Your task to perform on an android device: Go to notification settings Image 0: 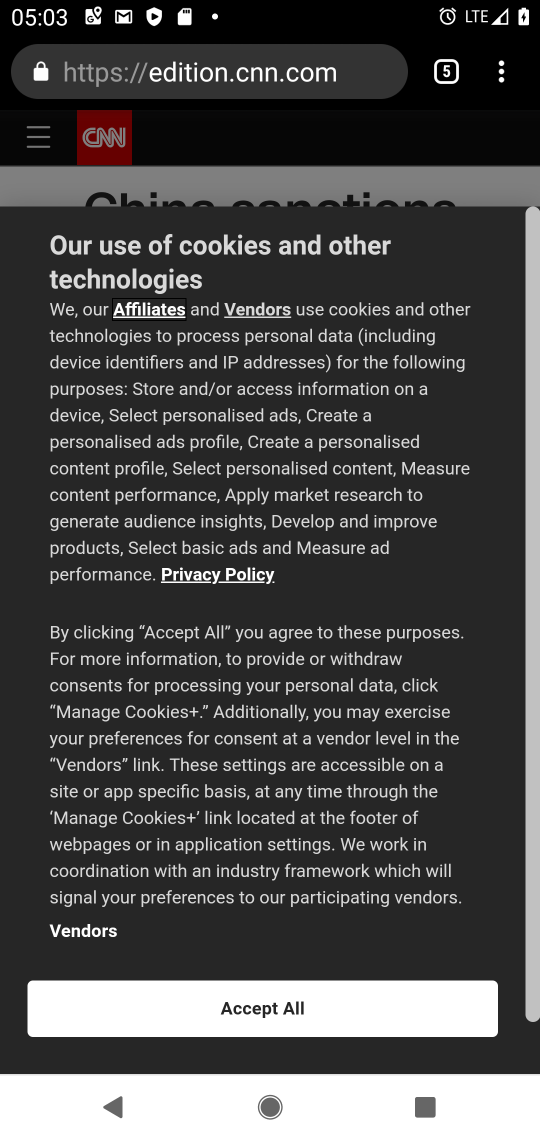
Step 0: press home button
Your task to perform on an android device: Go to notification settings Image 1: 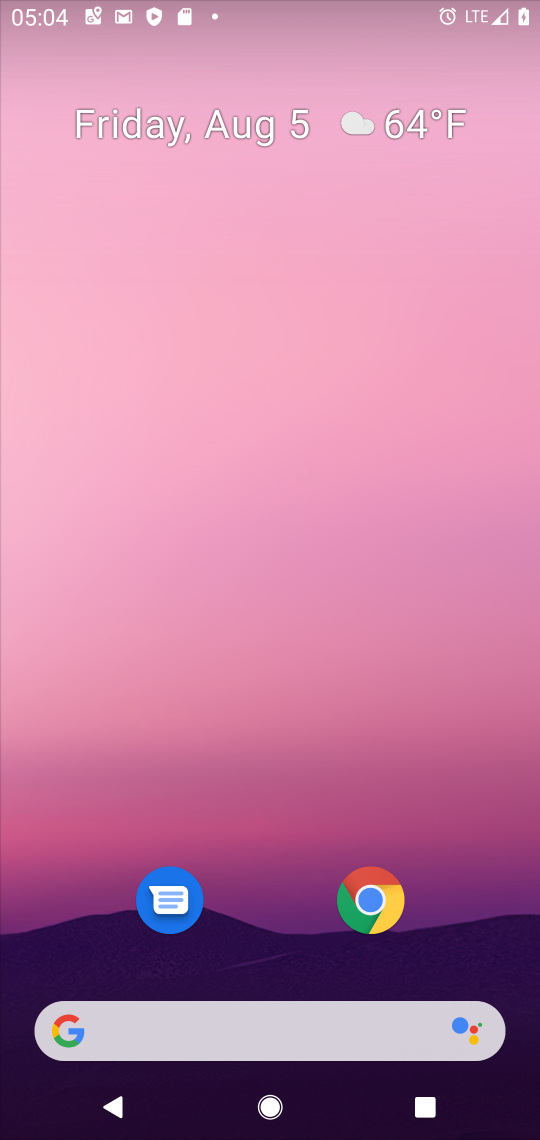
Step 1: drag from (195, 908) to (313, 167)
Your task to perform on an android device: Go to notification settings Image 2: 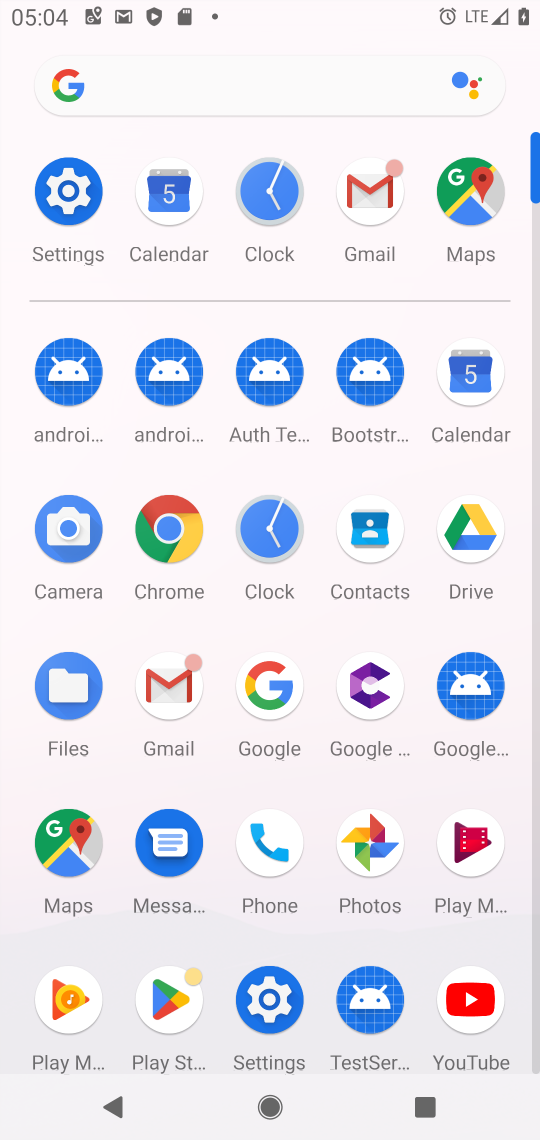
Step 2: click (72, 193)
Your task to perform on an android device: Go to notification settings Image 3: 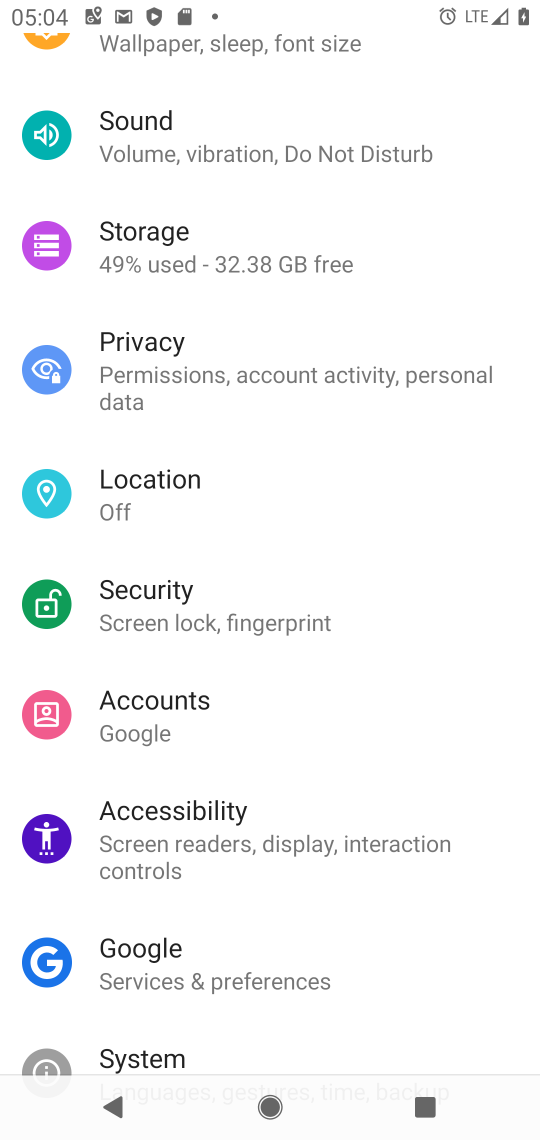
Step 3: drag from (299, 303) to (318, 1071)
Your task to perform on an android device: Go to notification settings Image 4: 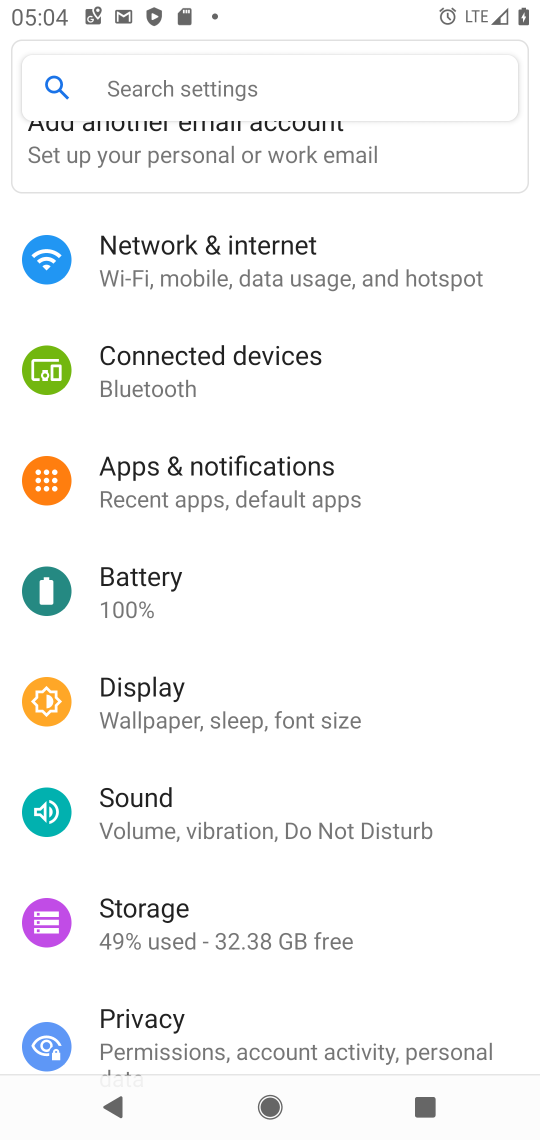
Step 4: click (296, 490)
Your task to perform on an android device: Go to notification settings Image 5: 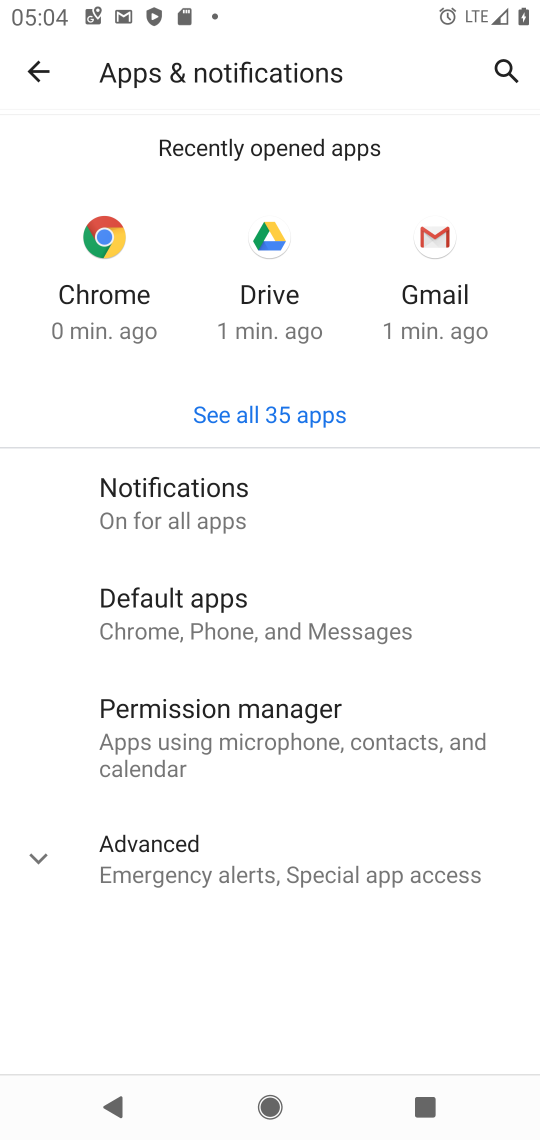
Step 5: task complete